Your task to perform on an android device: Show me recent news Image 0: 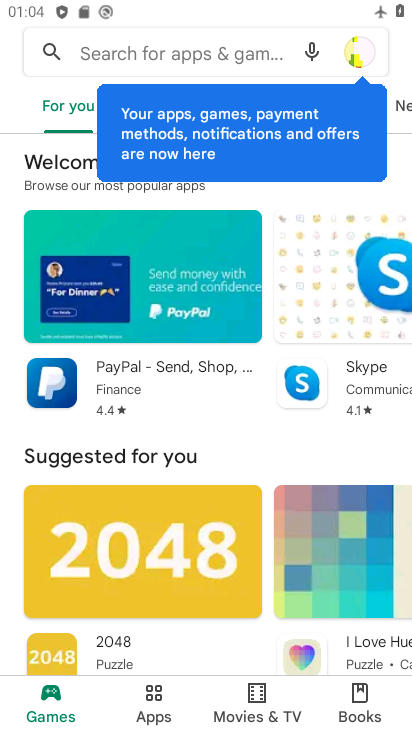
Step 0: press home button
Your task to perform on an android device: Show me recent news Image 1: 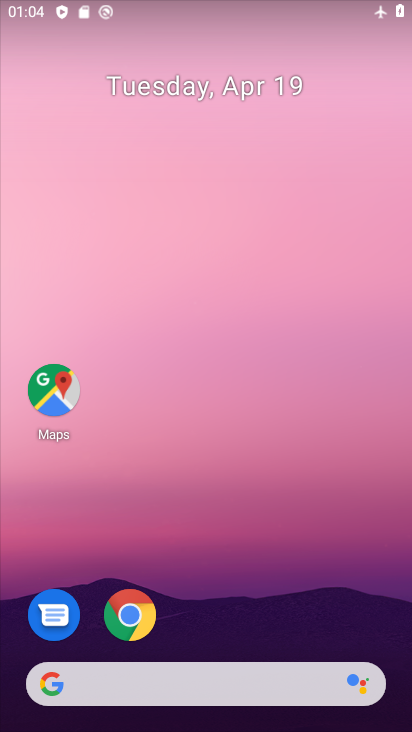
Step 1: task complete